Your task to perform on an android device: What's the weather today? Image 0: 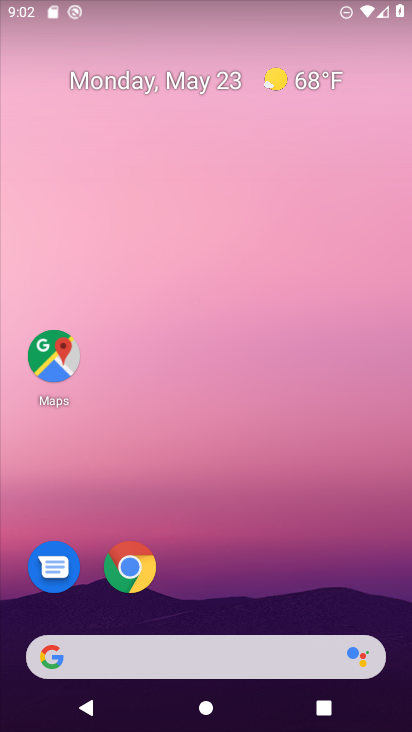
Step 0: drag from (237, 603) to (331, 66)
Your task to perform on an android device: What's the weather today? Image 1: 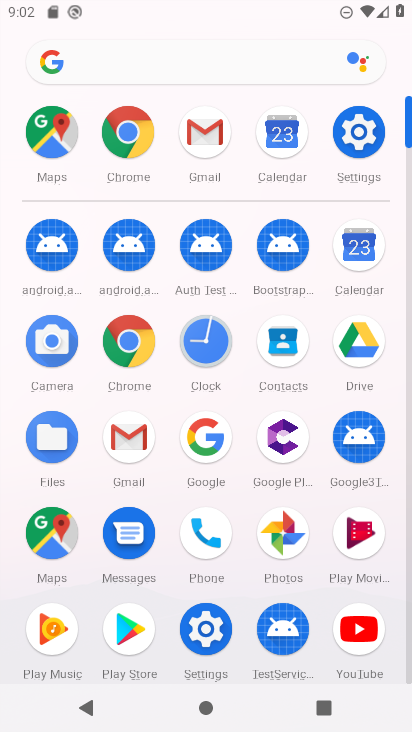
Step 1: click (161, 44)
Your task to perform on an android device: What's the weather today? Image 2: 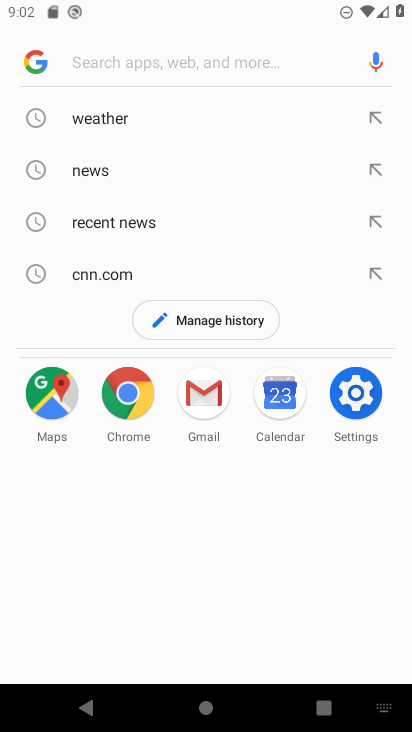
Step 2: type "What's the weather today?"
Your task to perform on an android device: What's the weather today? Image 3: 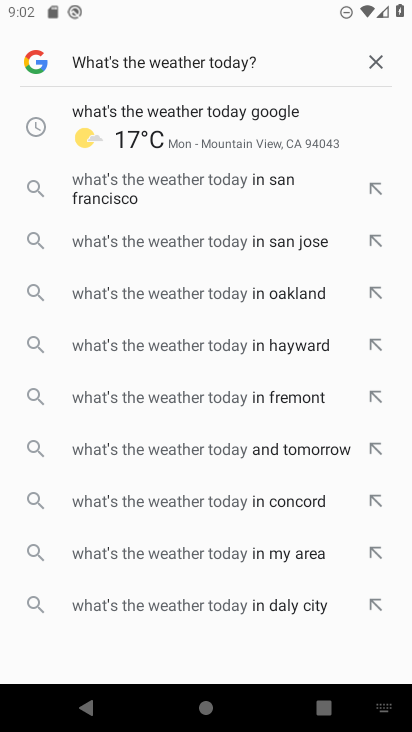
Step 3: click (165, 128)
Your task to perform on an android device: What's the weather today? Image 4: 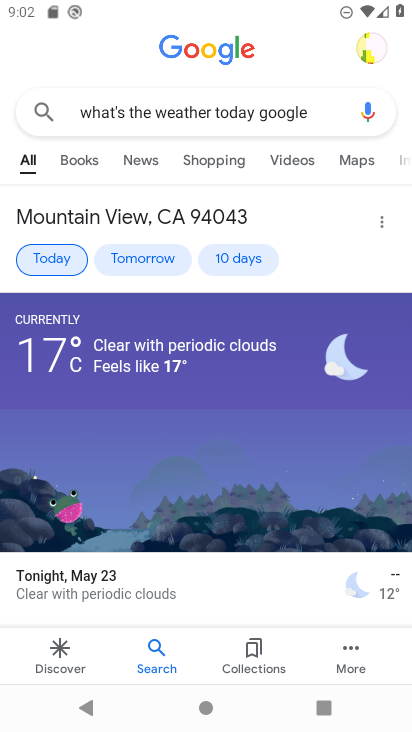
Step 4: task complete